Your task to perform on an android device: Find coffee shops on Maps Image 0: 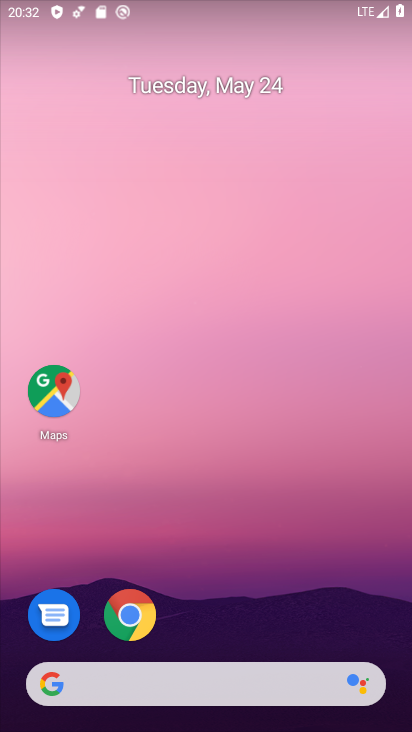
Step 0: click (47, 379)
Your task to perform on an android device: Find coffee shops on Maps Image 1: 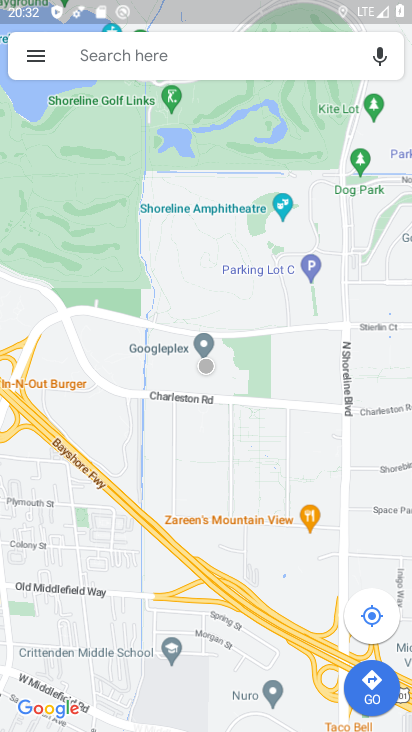
Step 1: click (195, 52)
Your task to perform on an android device: Find coffee shops on Maps Image 2: 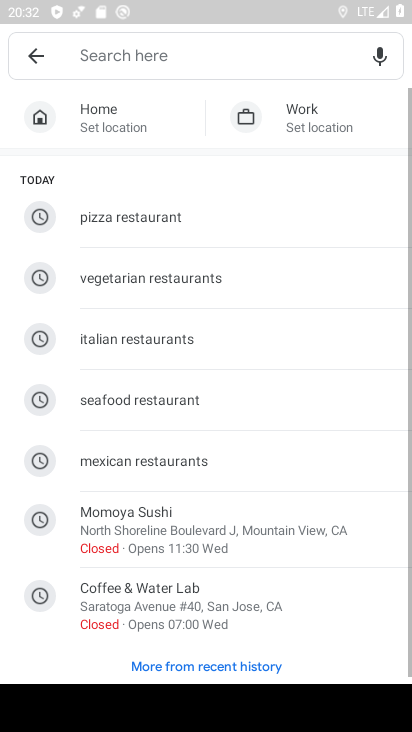
Step 2: type "coffee shops "
Your task to perform on an android device: Find coffee shops on Maps Image 3: 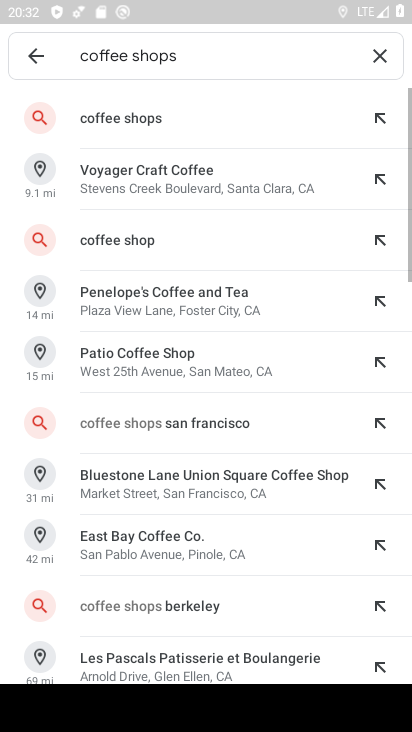
Step 3: click (168, 114)
Your task to perform on an android device: Find coffee shops on Maps Image 4: 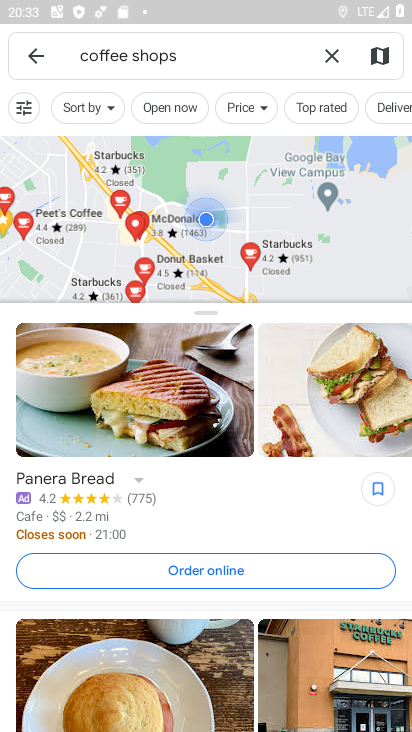
Step 4: task complete